Your task to perform on an android device: turn off airplane mode Image 0: 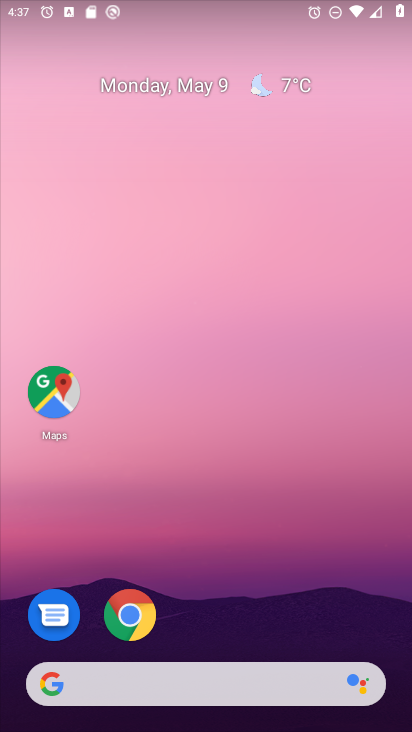
Step 0: drag from (387, 638) to (334, 57)
Your task to perform on an android device: turn off airplane mode Image 1: 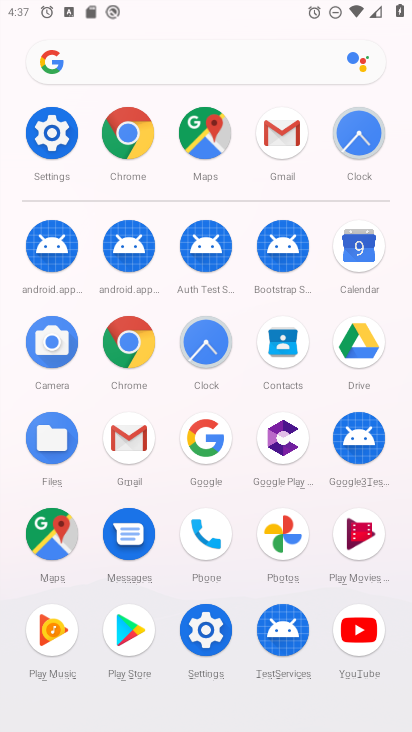
Step 1: click (203, 630)
Your task to perform on an android device: turn off airplane mode Image 2: 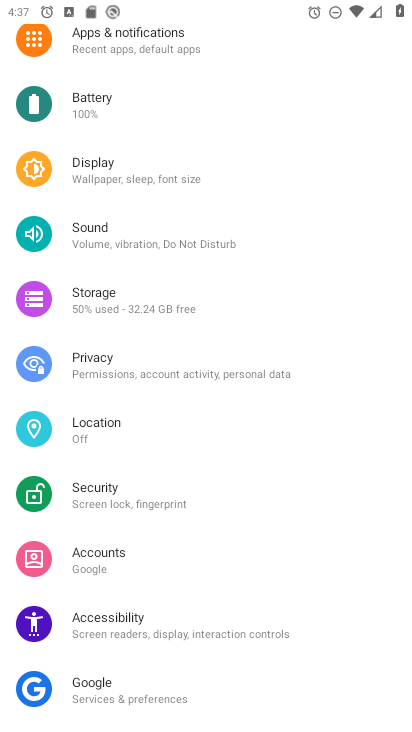
Step 2: drag from (310, 123) to (328, 513)
Your task to perform on an android device: turn off airplane mode Image 3: 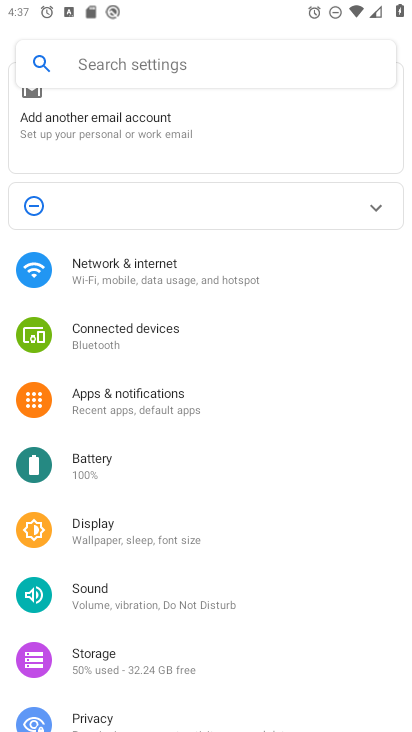
Step 3: click (97, 266)
Your task to perform on an android device: turn off airplane mode Image 4: 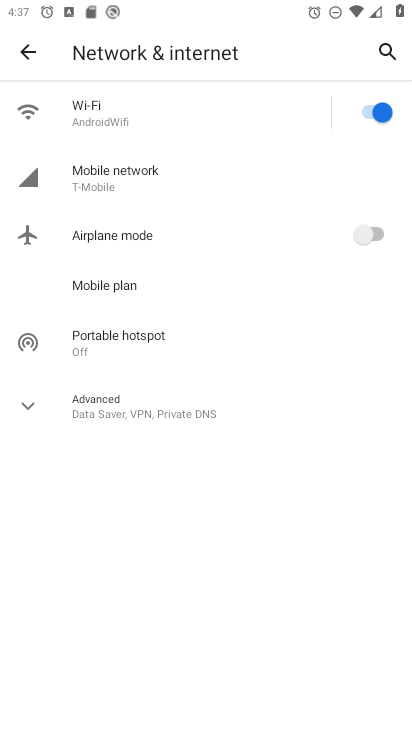
Step 4: task complete